Your task to perform on an android device: Go to sound settings Image 0: 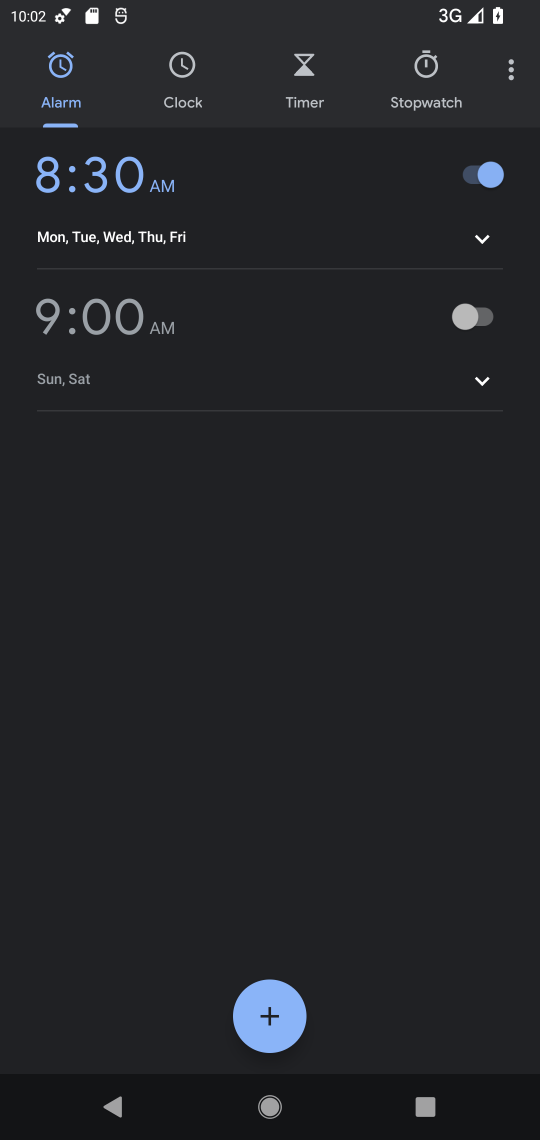
Step 0: press home button
Your task to perform on an android device: Go to sound settings Image 1: 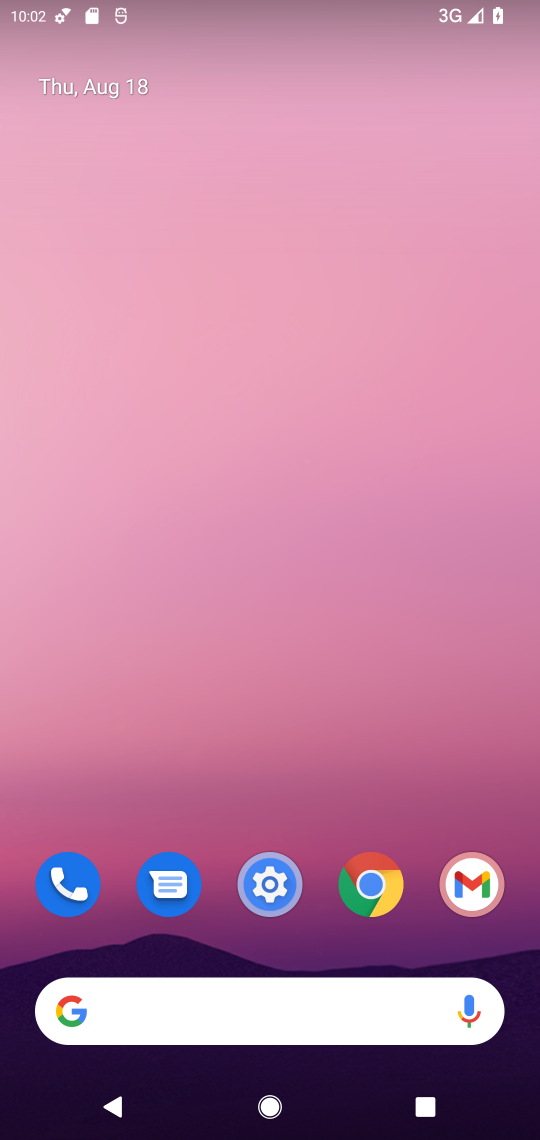
Step 1: click (286, 894)
Your task to perform on an android device: Go to sound settings Image 2: 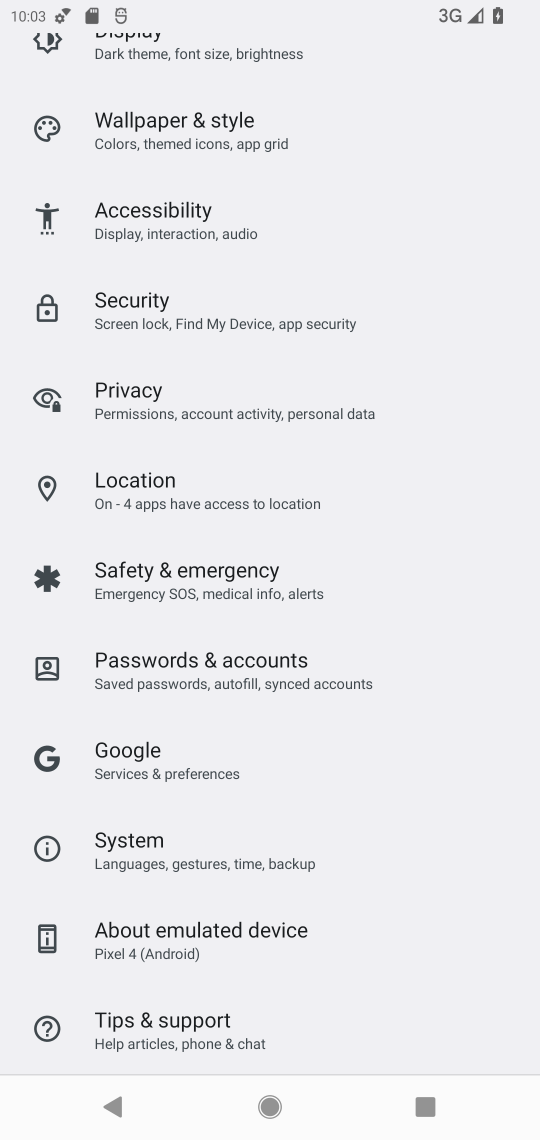
Step 2: drag from (326, 89) to (293, 840)
Your task to perform on an android device: Go to sound settings Image 3: 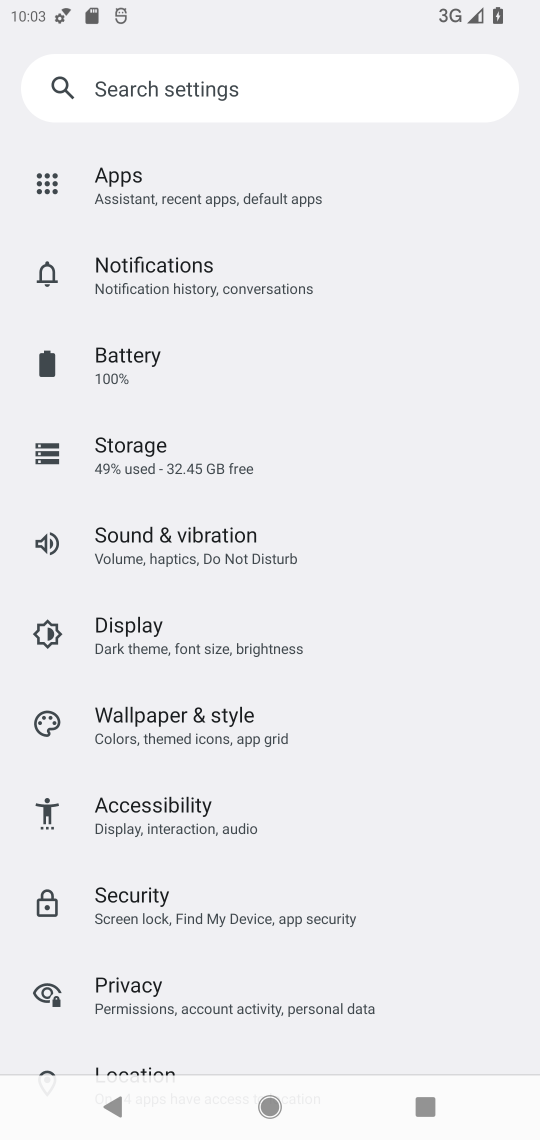
Step 3: click (130, 559)
Your task to perform on an android device: Go to sound settings Image 4: 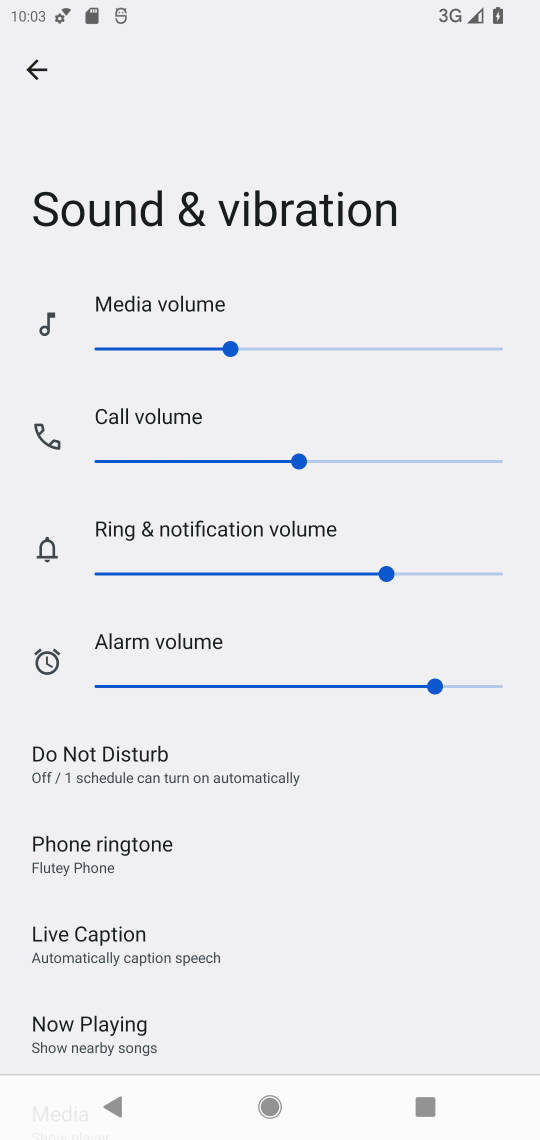
Step 4: task complete